Your task to perform on an android device: toggle location history Image 0: 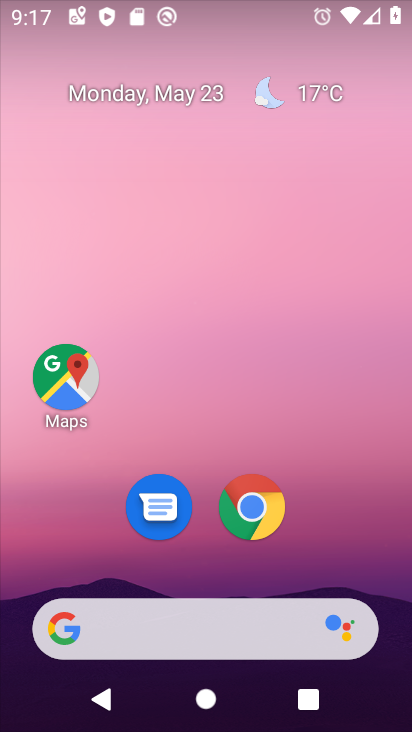
Step 0: click (67, 373)
Your task to perform on an android device: toggle location history Image 1: 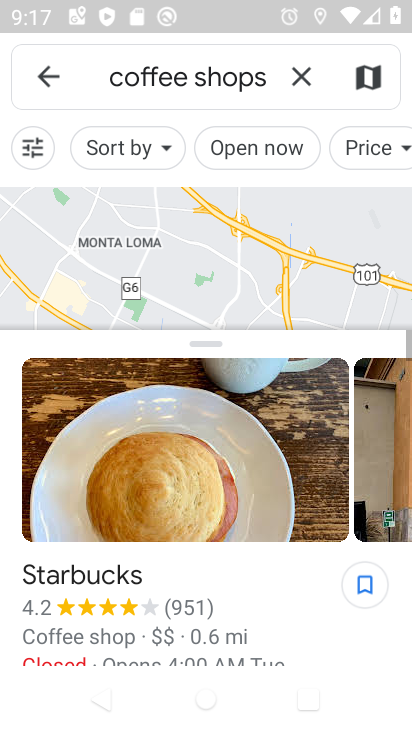
Step 1: click (306, 82)
Your task to perform on an android device: toggle location history Image 2: 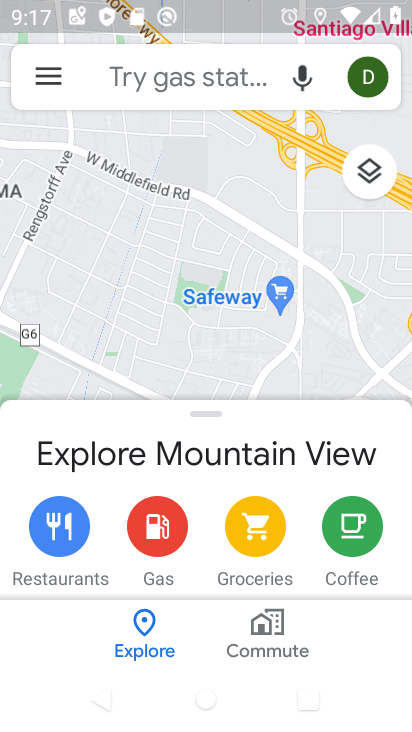
Step 2: click (53, 81)
Your task to perform on an android device: toggle location history Image 3: 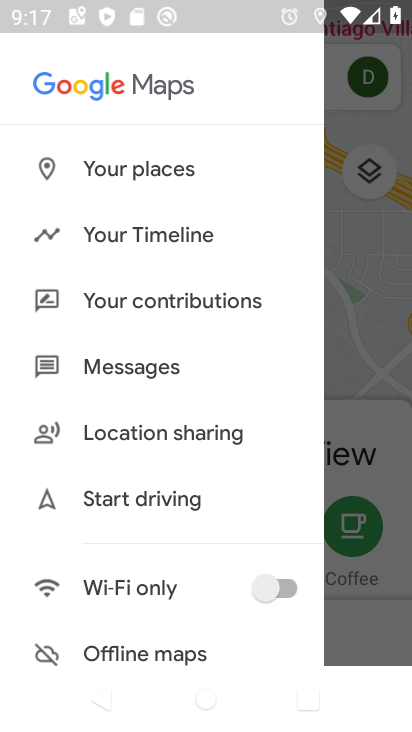
Step 3: click (148, 234)
Your task to perform on an android device: toggle location history Image 4: 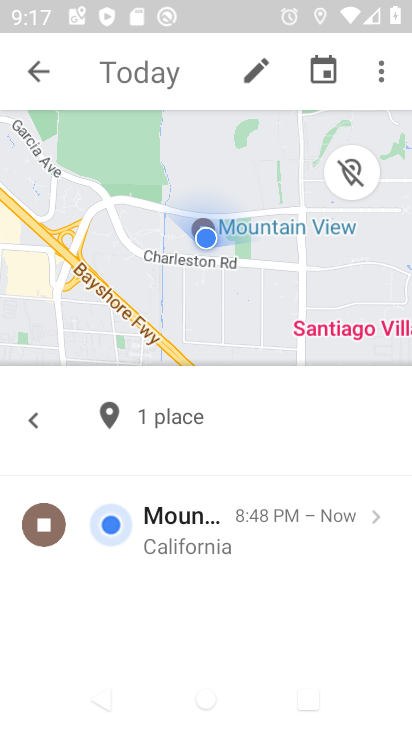
Step 4: click (382, 78)
Your task to perform on an android device: toggle location history Image 5: 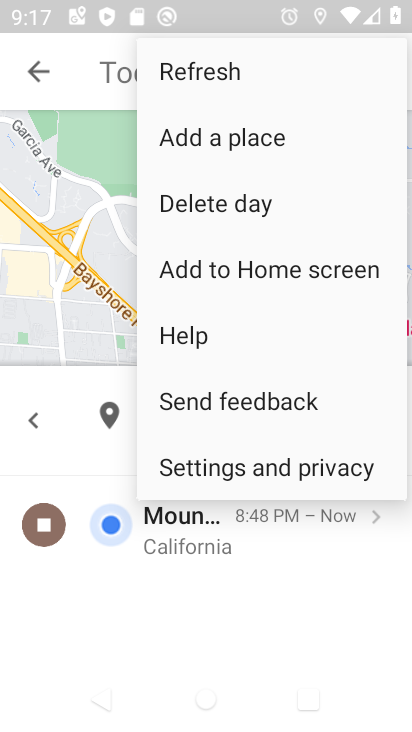
Step 5: click (232, 470)
Your task to perform on an android device: toggle location history Image 6: 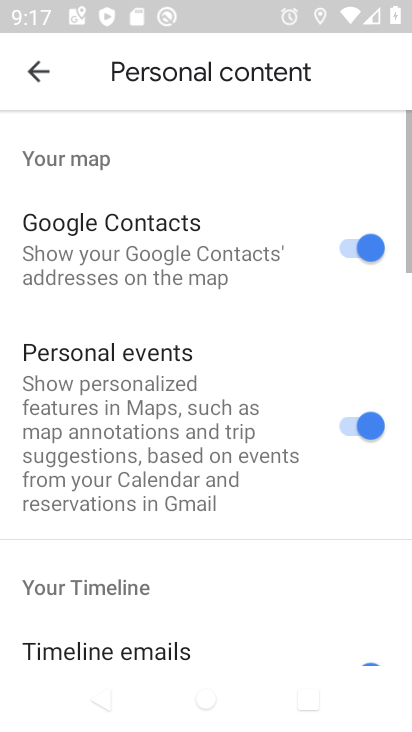
Step 6: drag from (187, 544) to (178, 79)
Your task to perform on an android device: toggle location history Image 7: 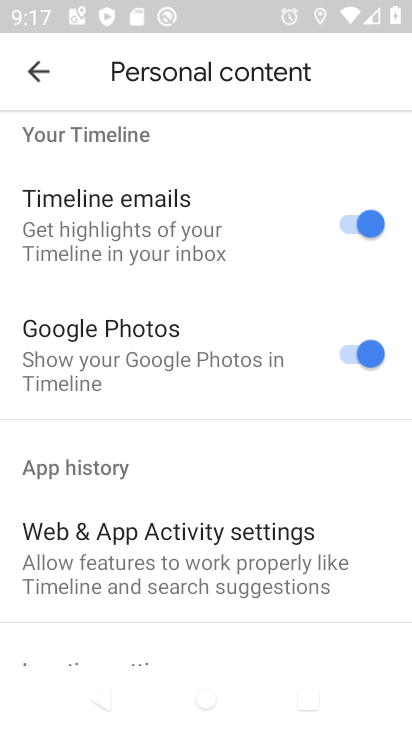
Step 7: drag from (105, 523) to (134, 96)
Your task to perform on an android device: toggle location history Image 8: 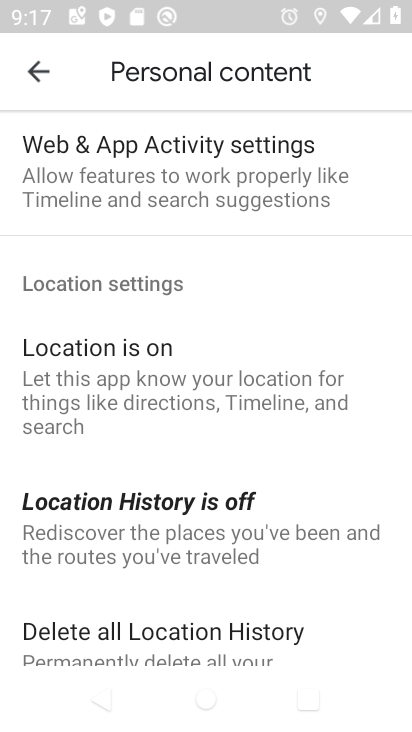
Step 8: click (98, 526)
Your task to perform on an android device: toggle location history Image 9: 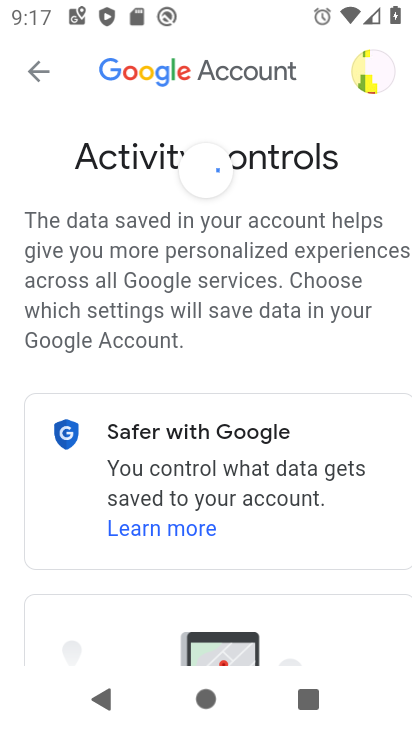
Step 9: drag from (290, 545) to (178, 16)
Your task to perform on an android device: toggle location history Image 10: 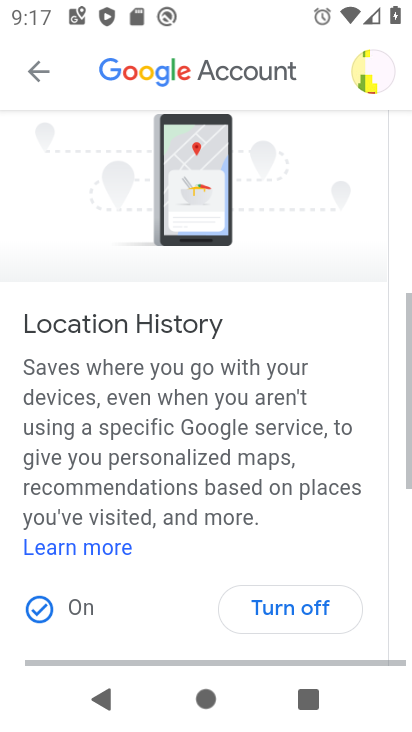
Step 10: drag from (180, 493) to (178, 149)
Your task to perform on an android device: toggle location history Image 11: 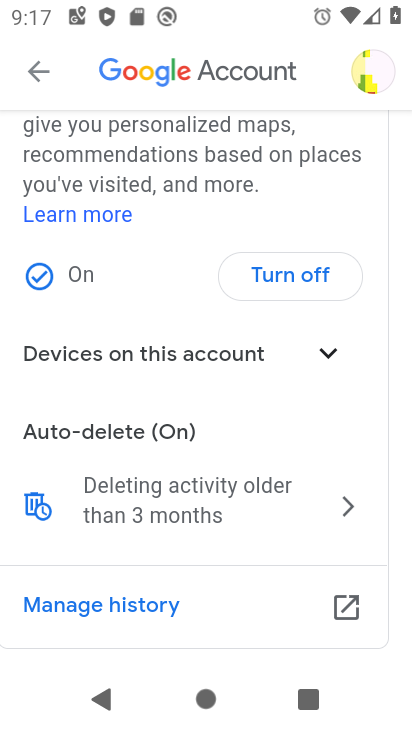
Step 11: click (296, 267)
Your task to perform on an android device: toggle location history Image 12: 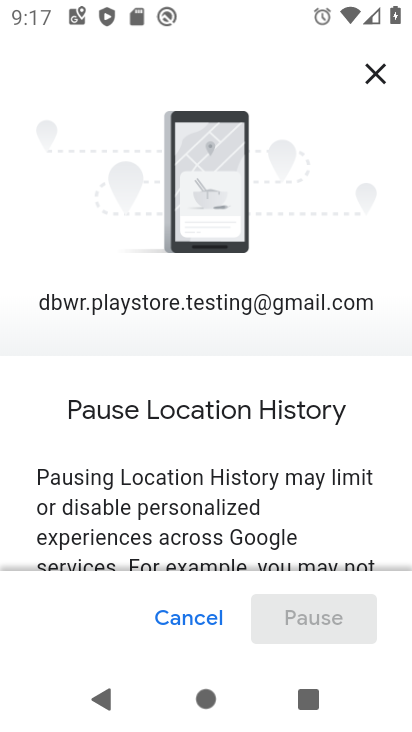
Step 12: drag from (235, 482) to (163, 5)
Your task to perform on an android device: toggle location history Image 13: 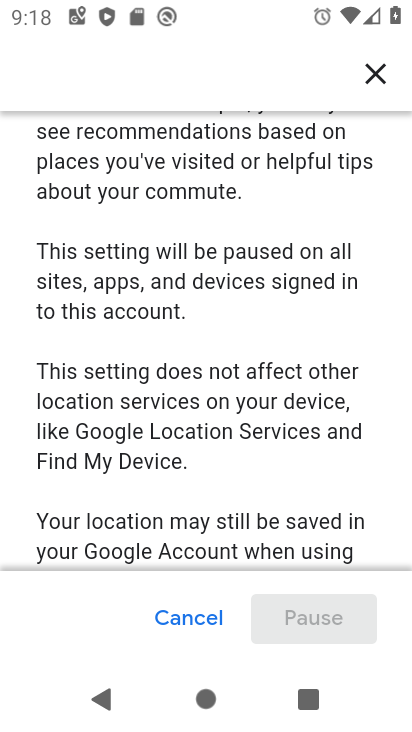
Step 13: drag from (276, 483) to (199, 32)
Your task to perform on an android device: toggle location history Image 14: 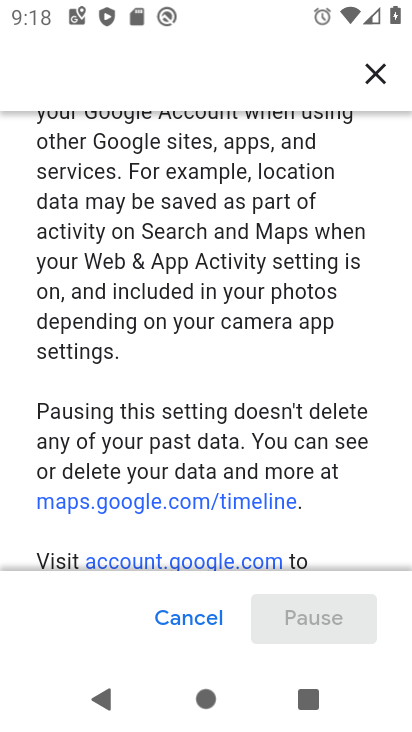
Step 14: drag from (226, 491) to (168, 125)
Your task to perform on an android device: toggle location history Image 15: 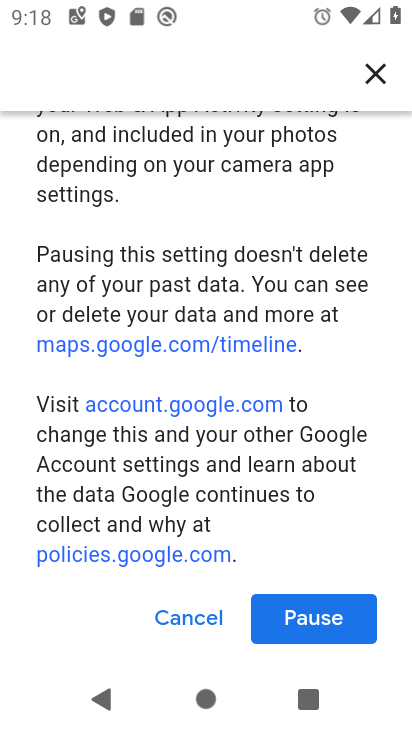
Step 15: click (301, 606)
Your task to perform on an android device: toggle location history Image 16: 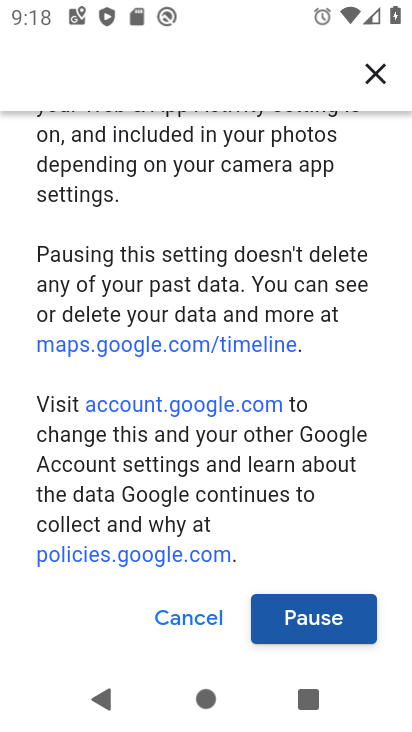
Step 16: click (316, 628)
Your task to perform on an android device: toggle location history Image 17: 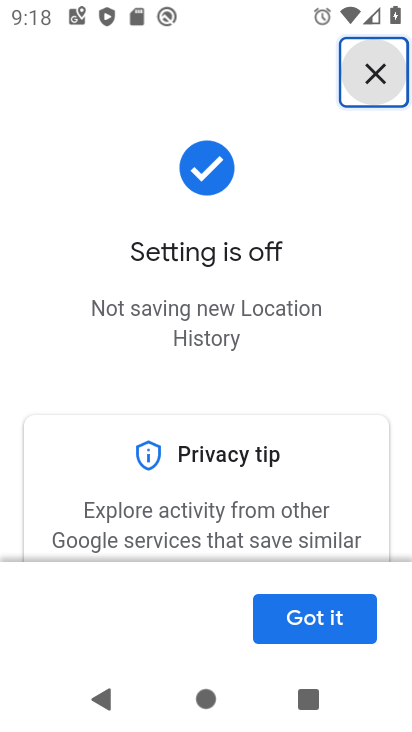
Step 17: click (316, 628)
Your task to perform on an android device: toggle location history Image 18: 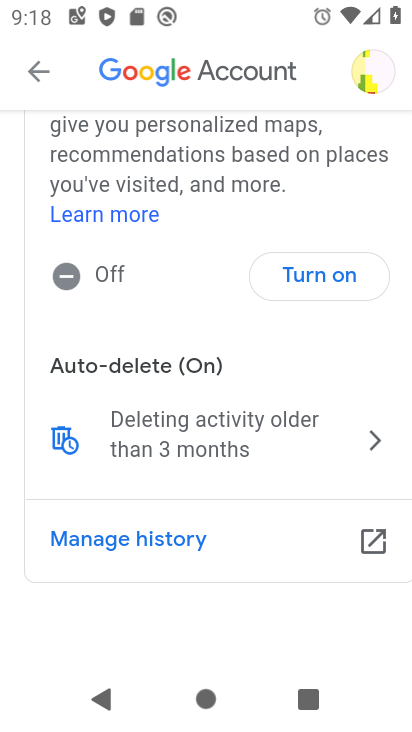
Step 18: task complete